Your task to perform on an android device: show emergency info Image 0: 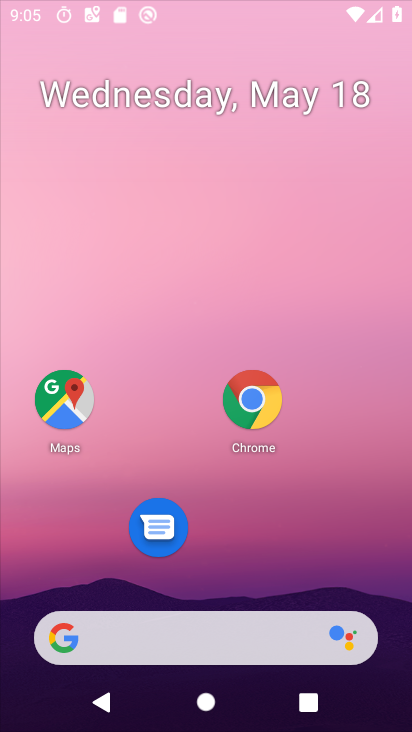
Step 0: drag from (261, 293) to (275, 81)
Your task to perform on an android device: show emergency info Image 1: 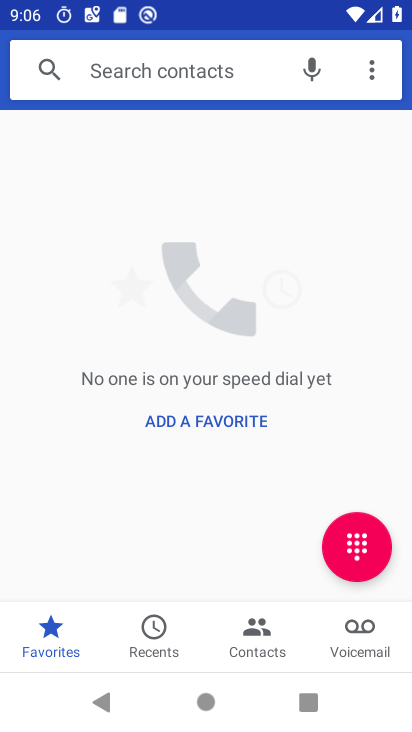
Step 1: press home button
Your task to perform on an android device: show emergency info Image 2: 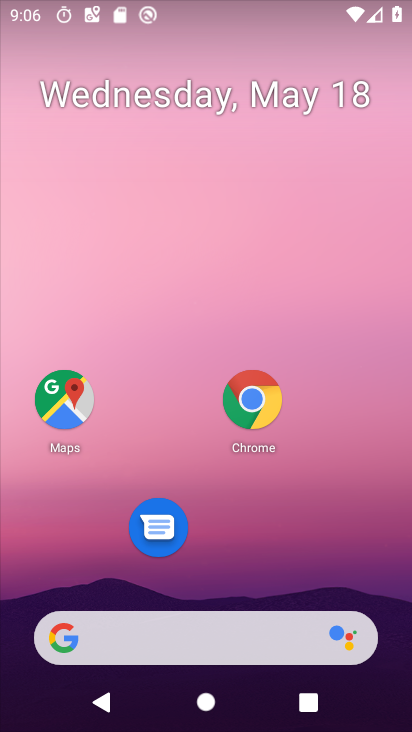
Step 2: drag from (294, 534) to (407, 13)
Your task to perform on an android device: show emergency info Image 3: 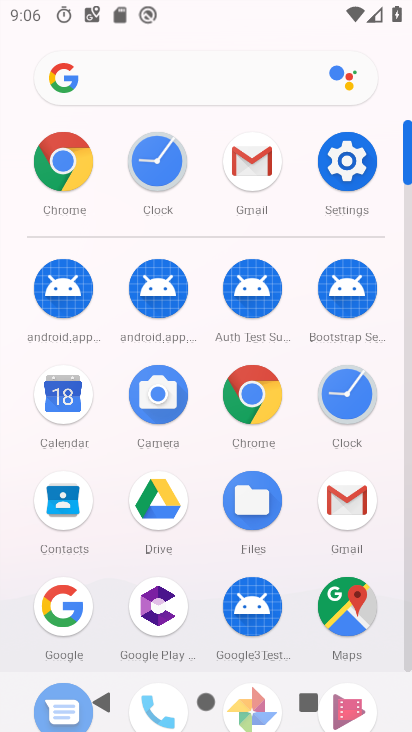
Step 3: click (345, 183)
Your task to perform on an android device: show emergency info Image 4: 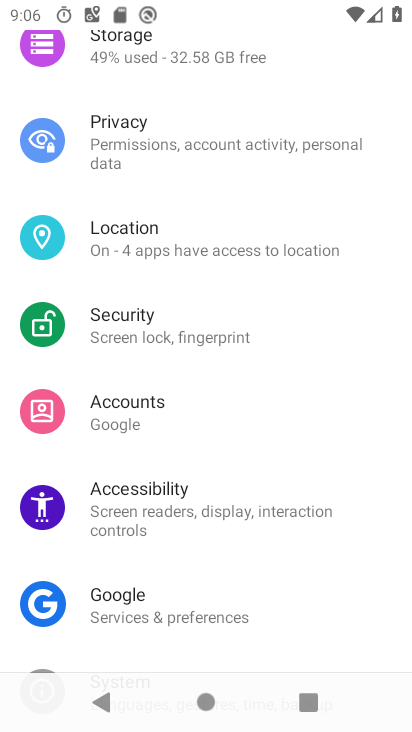
Step 4: drag from (205, 531) to (183, 190)
Your task to perform on an android device: show emergency info Image 5: 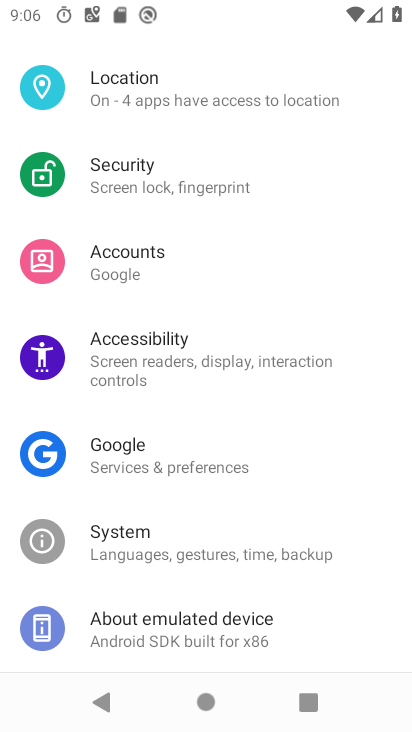
Step 5: click (172, 631)
Your task to perform on an android device: show emergency info Image 6: 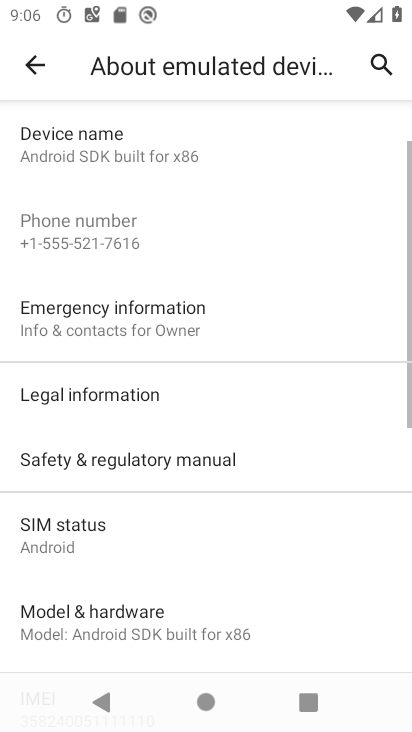
Step 6: click (188, 609)
Your task to perform on an android device: show emergency info Image 7: 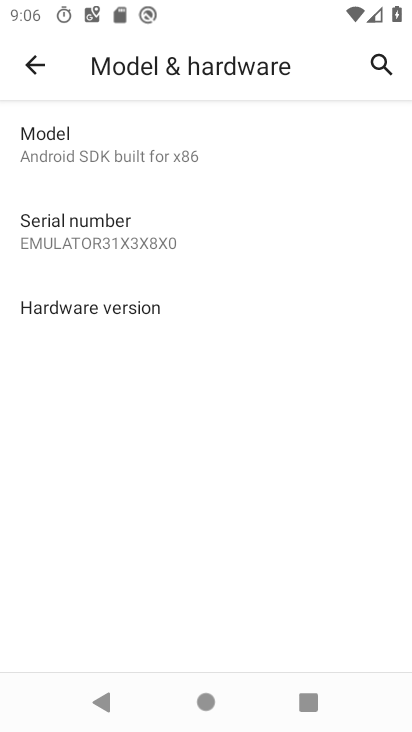
Step 7: click (36, 57)
Your task to perform on an android device: show emergency info Image 8: 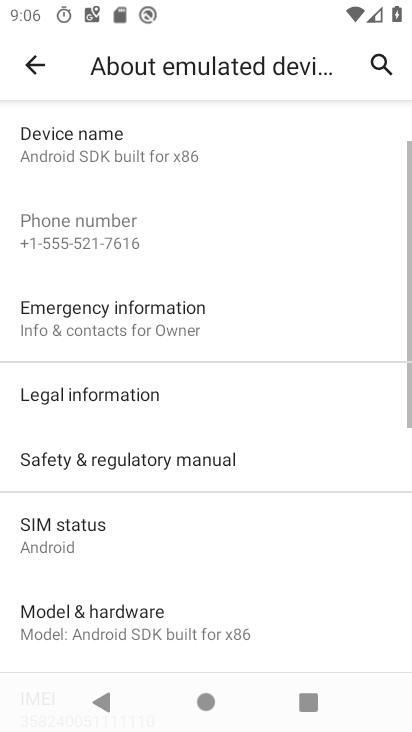
Step 8: click (153, 305)
Your task to perform on an android device: show emergency info Image 9: 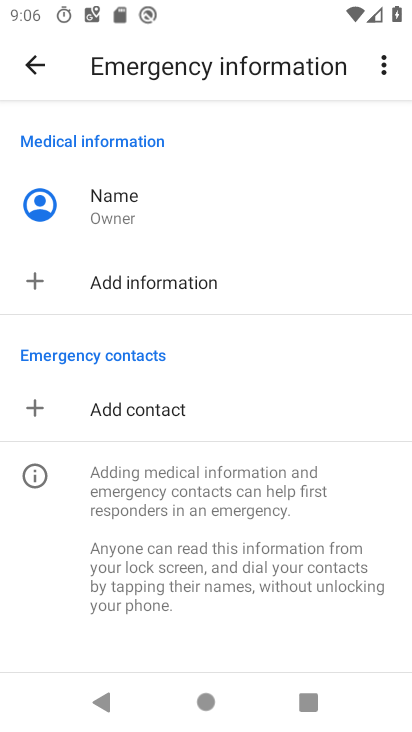
Step 9: task complete